Your task to perform on an android device: check storage Image 0: 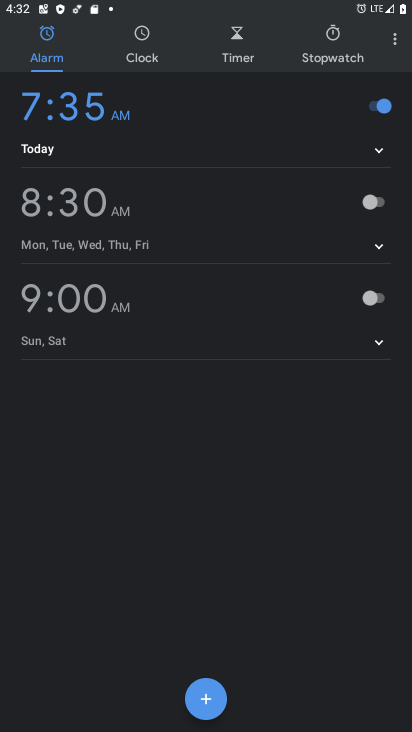
Step 0: press home button
Your task to perform on an android device: check storage Image 1: 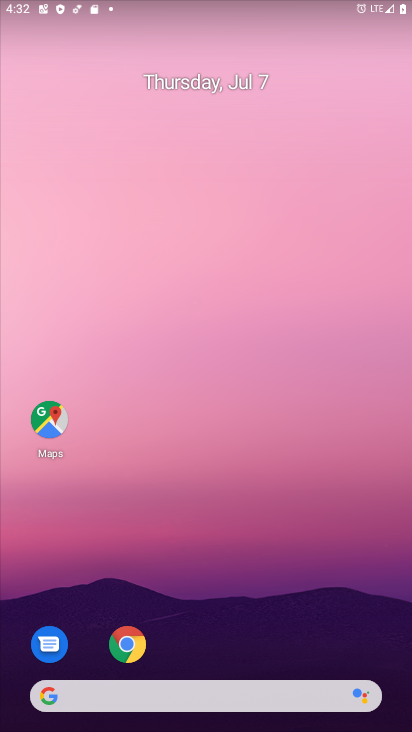
Step 1: drag from (267, 616) to (260, 106)
Your task to perform on an android device: check storage Image 2: 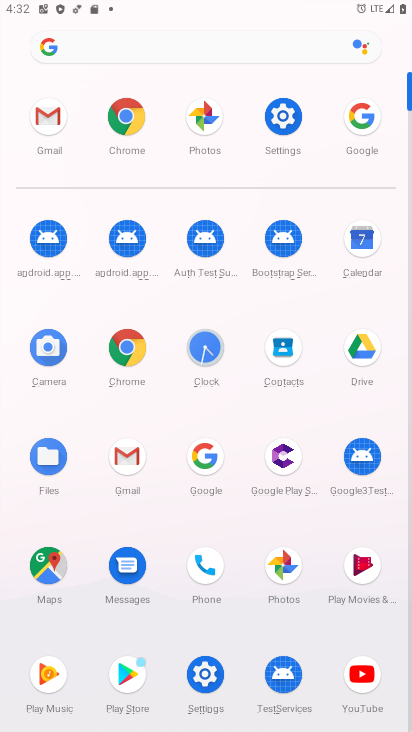
Step 2: click (206, 674)
Your task to perform on an android device: check storage Image 3: 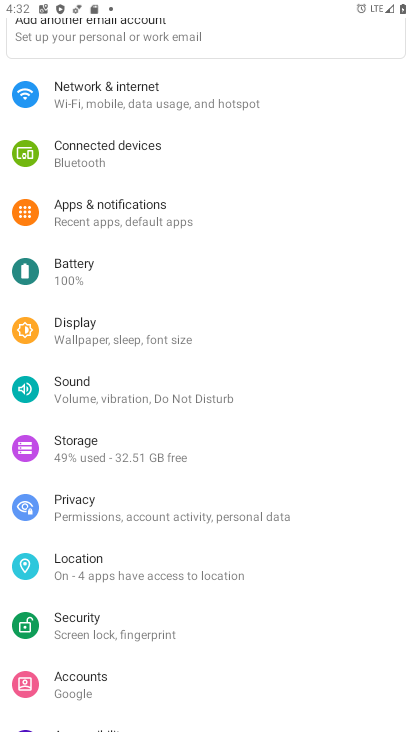
Step 3: click (124, 451)
Your task to perform on an android device: check storage Image 4: 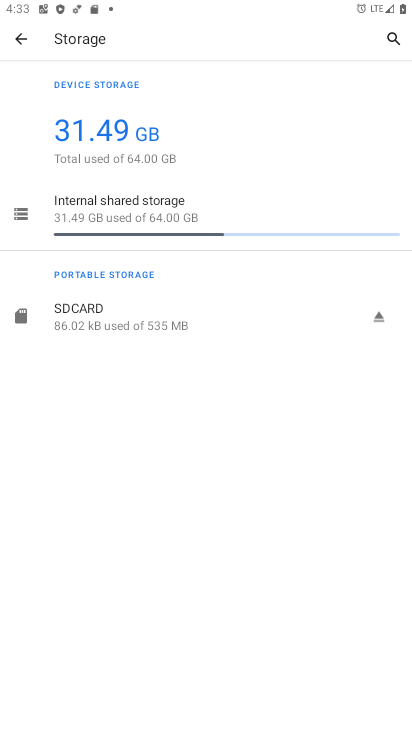
Step 4: task complete